Your task to perform on an android device: Go to Reddit.com Image 0: 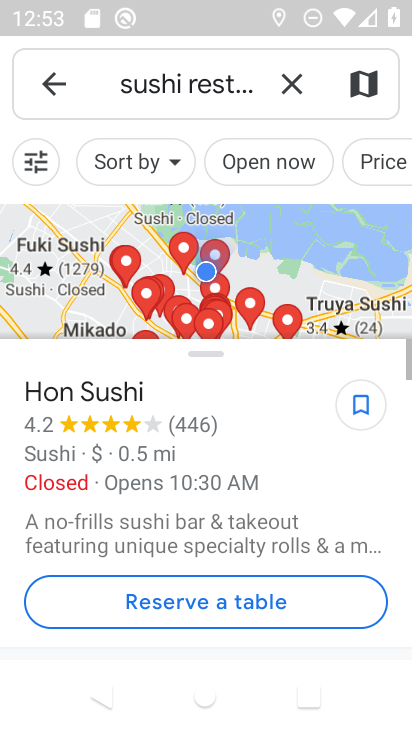
Step 0: press back button
Your task to perform on an android device: Go to Reddit.com Image 1: 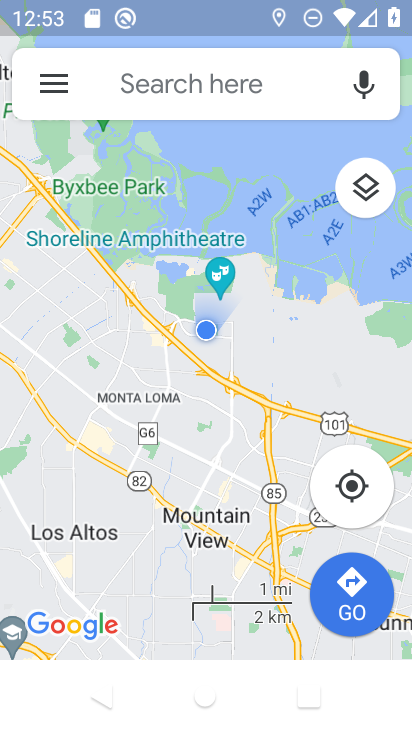
Step 1: press back button
Your task to perform on an android device: Go to Reddit.com Image 2: 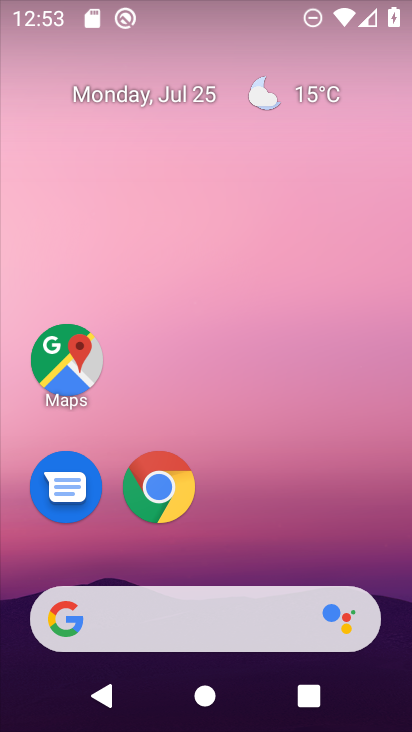
Step 2: click (161, 485)
Your task to perform on an android device: Go to Reddit.com Image 3: 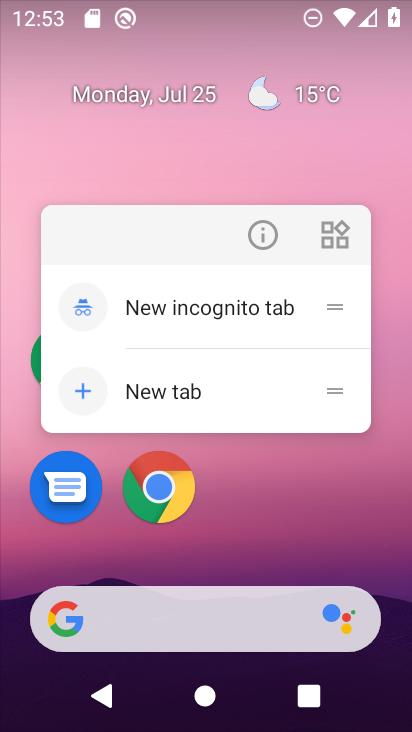
Step 3: click (159, 487)
Your task to perform on an android device: Go to Reddit.com Image 4: 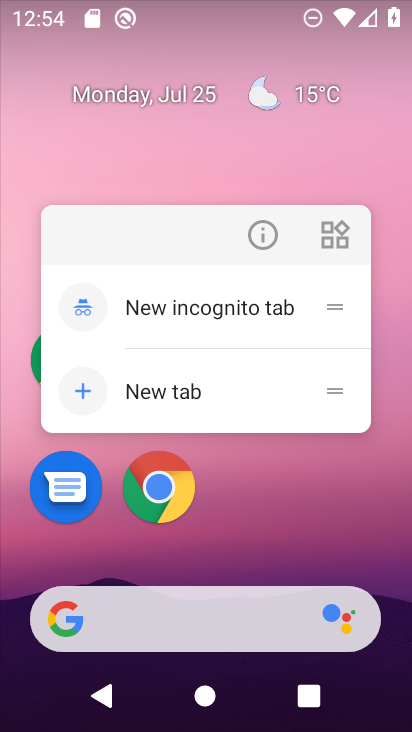
Step 4: click (160, 497)
Your task to perform on an android device: Go to Reddit.com Image 5: 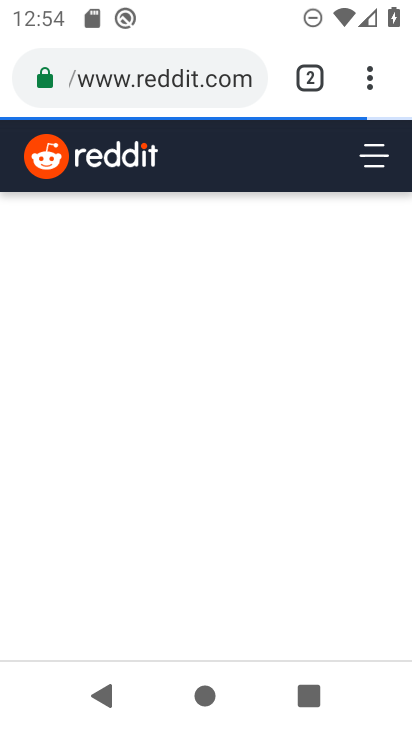
Step 5: task complete